Your task to perform on an android device: What's the weather going to be tomorrow? Image 0: 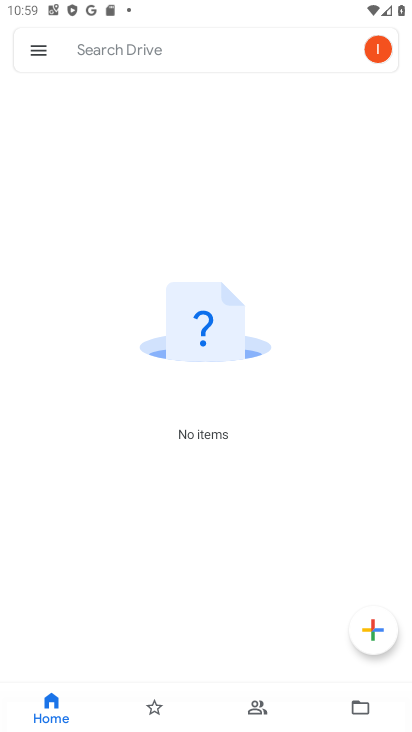
Step 0: press home button
Your task to perform on an android device: What's the weather going to be tomorrow? Image 1: 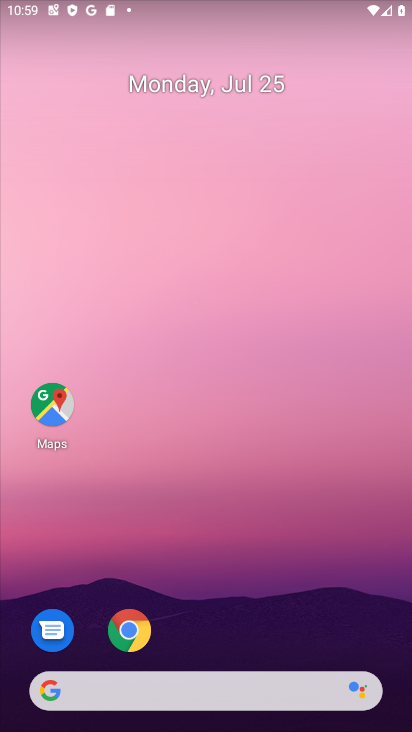
Step 1: click (111, 698)
Your task to perform on an android device: What's the weather going to be tomorrow? Image 2: 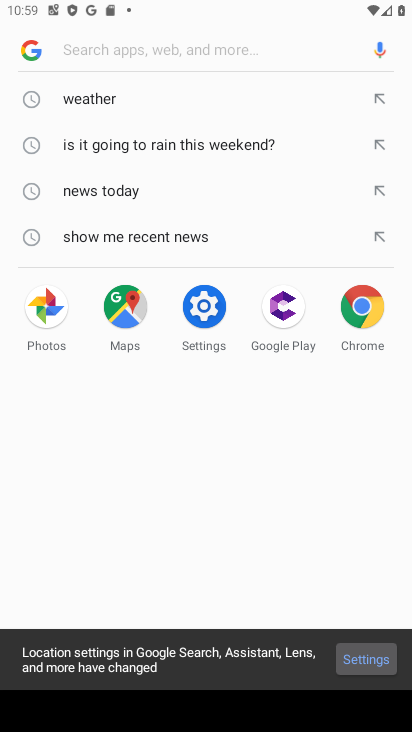
Step 2: click (94, 103)
Your task to perform on an android device: What's the weather going to be tomorrow? Image 3: 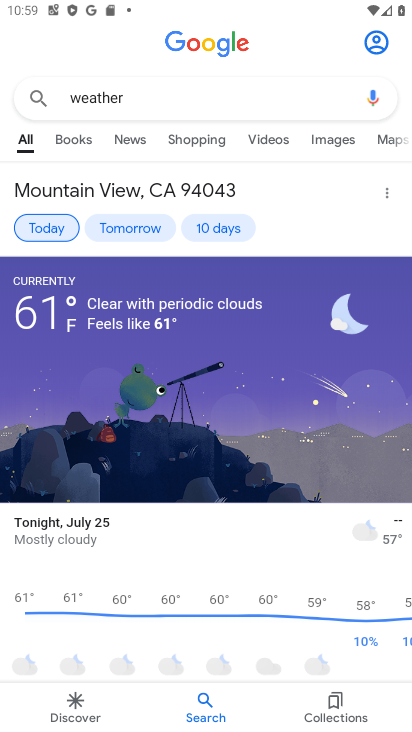
Step 3: click (114, 235)
Your task to perform on an android device: What's the weather going to be tomorrow? Image 4: 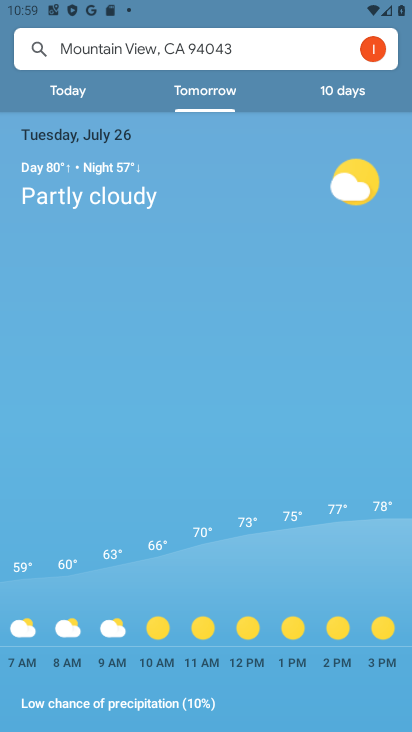
Step 4: task complete